Your task to perform on an android device: check data usage Image 0: 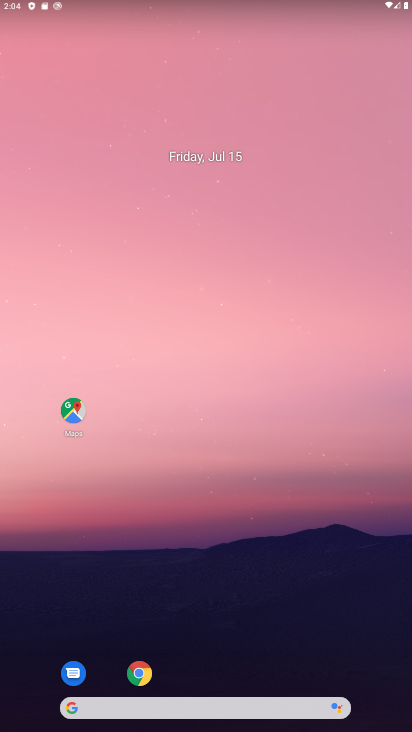
Step 0: drag from (206, 669) to (249, 186)
Your task to perform on an android device: check data usage Image 1: 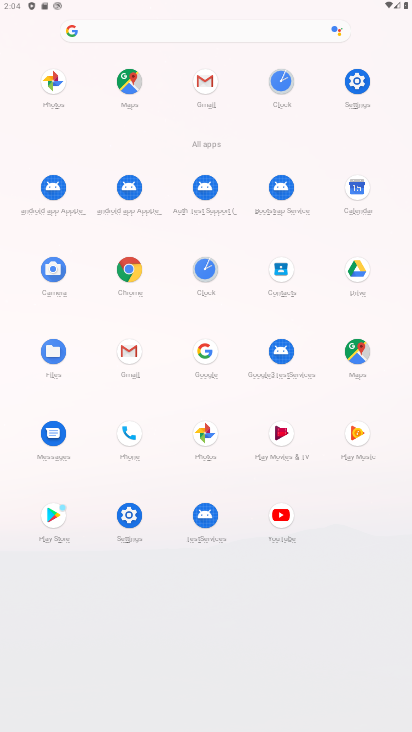
Step 1: click (128, 520)
Your task to perform on an android device: check data usage Image 2: 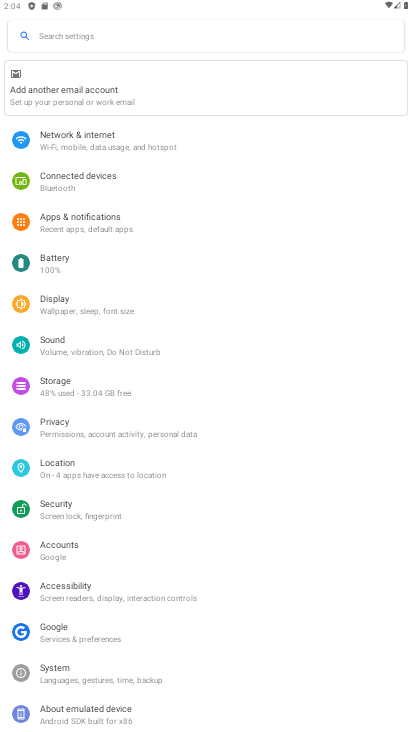
Step 2: click (177, 141)
Your task to perform on an android device: check data usage Image 3: 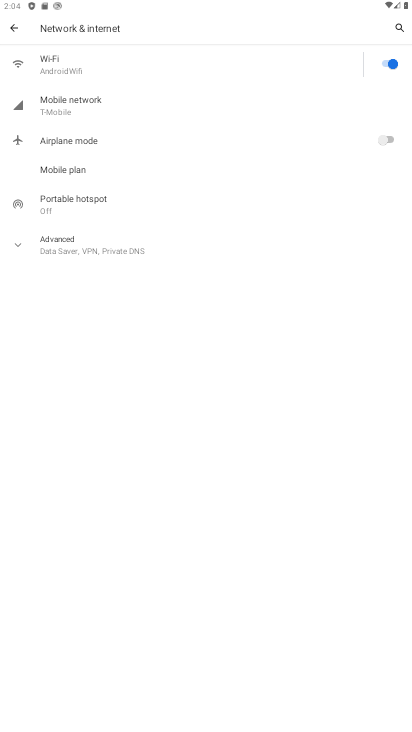
Step 3: click (156, 103)
Your task to perform on an android device: check data usage Image 4: 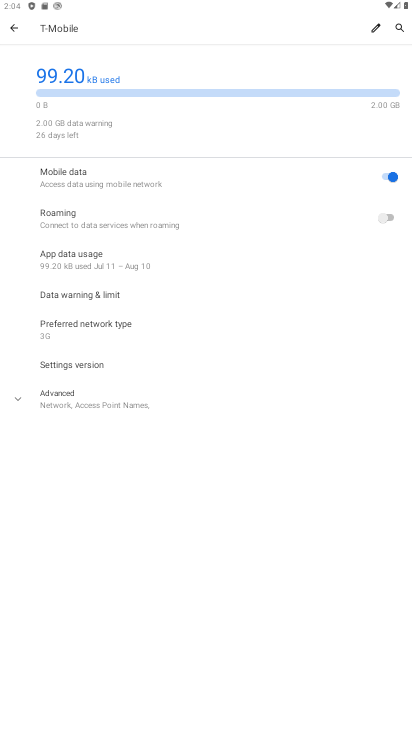
Step 4: click (152, 267)
Your task to perform on an android device: check data usage Image 5: 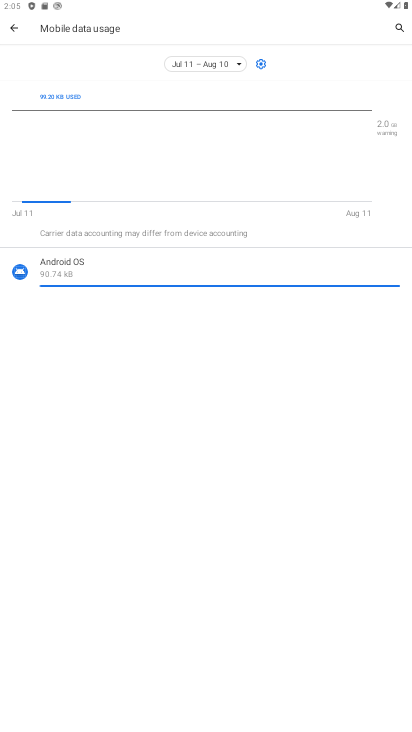
Step 5: task complete